Your task to perform on an android device: Open Amazon Image 0: 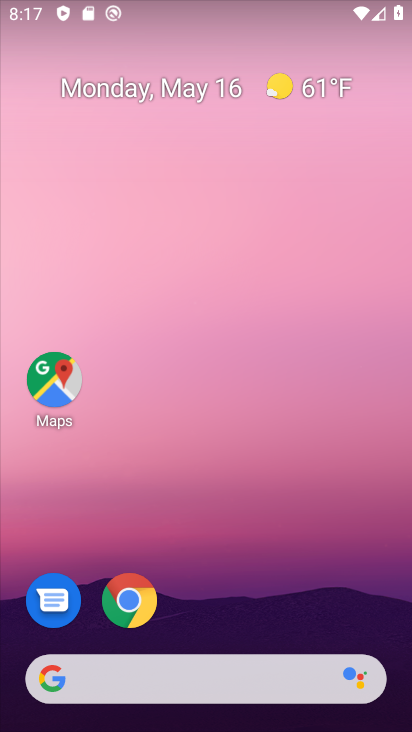
Step 0: click (136, 592)
Your task to perform on an android device: Open Amazon Image 1: 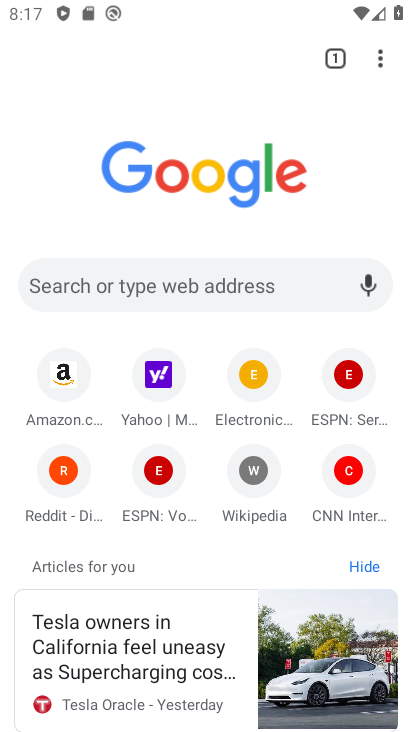
Step 1: click (162, 280)
Your task to perform on an android device: Open Amazon Image 2: 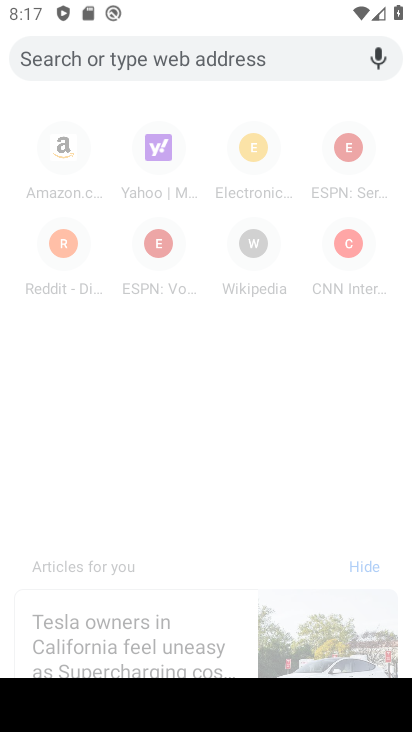
Step 2: type "amazon"
Your task to perform on an android device: Open Amazon Image 3: 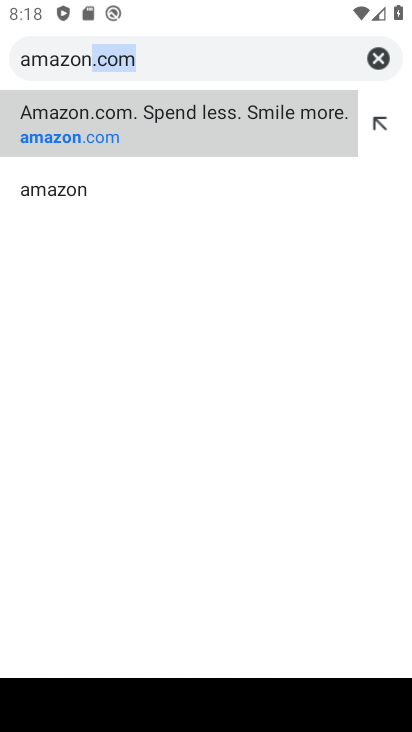
Step 3: click (123, 87)
Your task to perform on an android device: Open Amazon Image 4: 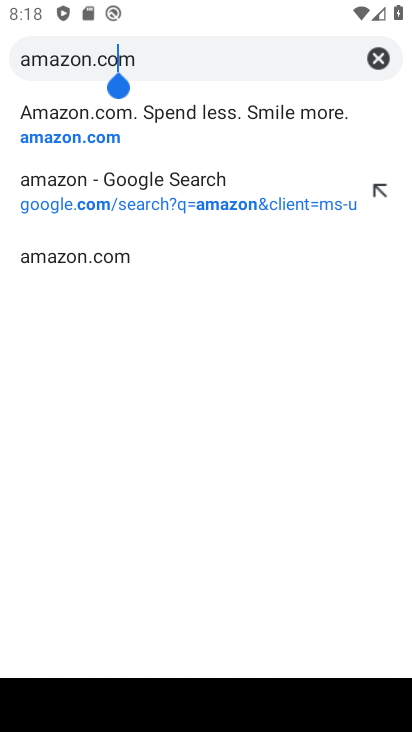
Step 4: click (111, 109)
Your task to perform on an android device: Open Amazon Image 5: 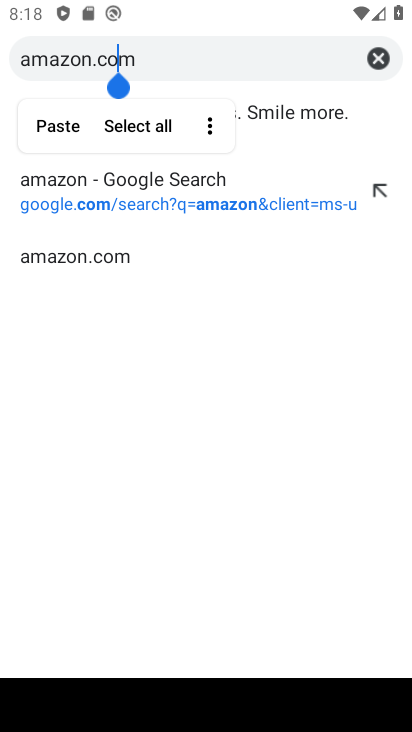
Step 5: click (284, 137)
Your task to perform on an android device: Open Amazon Image 6: 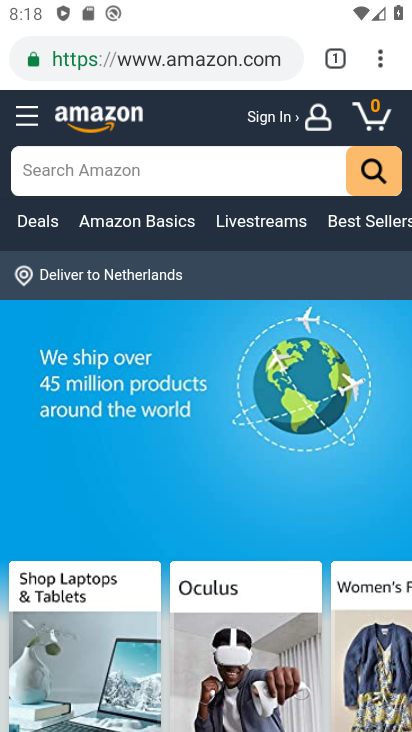
Step 6: task complete